Your task to perform on an android device: Open Chrome and go to settings Image 0: 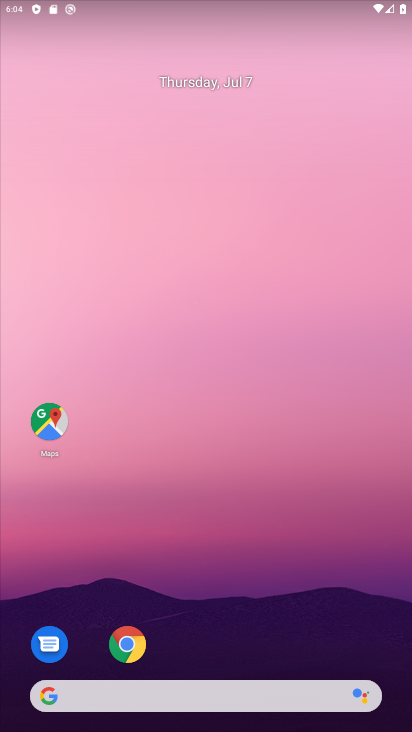
Step 0: drag from (233, 608) to (271, 81)
Your task to perform on an android device: Open Chrome and go to settings Image 1: 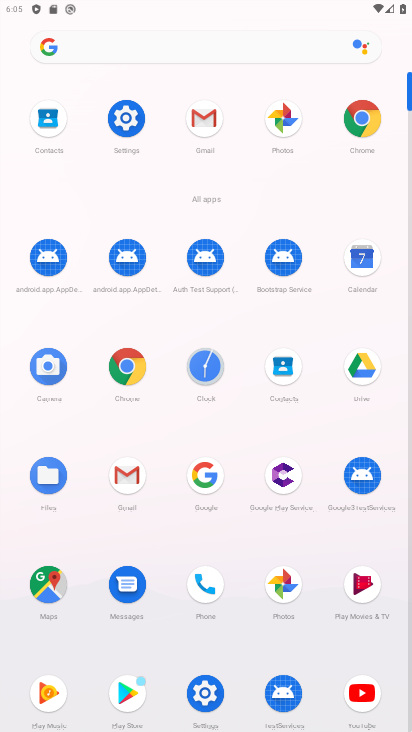
Step 1: click (366, 123)
Your task to perform on an android device: Open Chrome and go to settings Image 2: 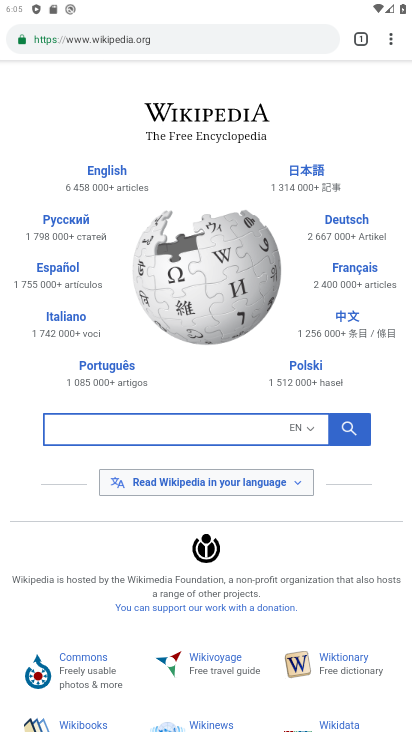
Step 2: click (389, 31)
Your task to perform on an android device: Open Chrome and go to settings Image 3: 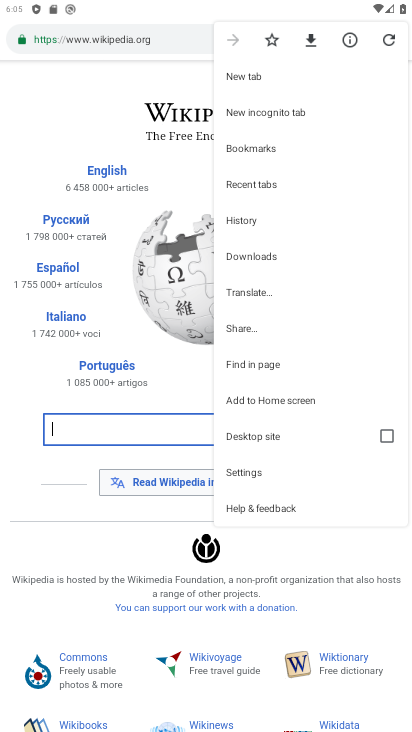
Step 3: click (235, 479)
Your task to perform on an android device: Open Chrome and go to settings Image 4: 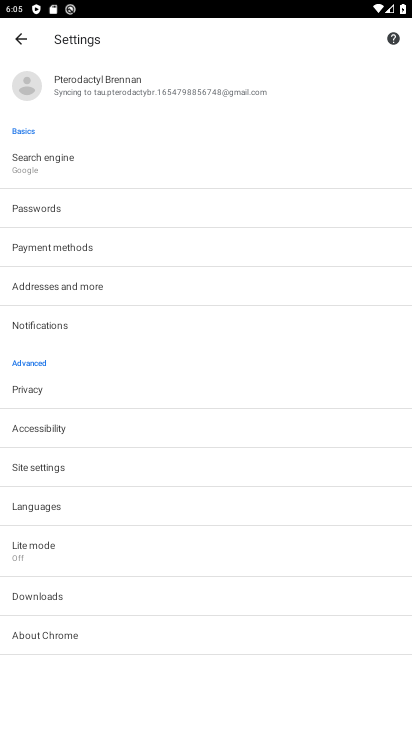
Step 4: task complete